Your task to perform on an android device: Open battery settings Image 0: 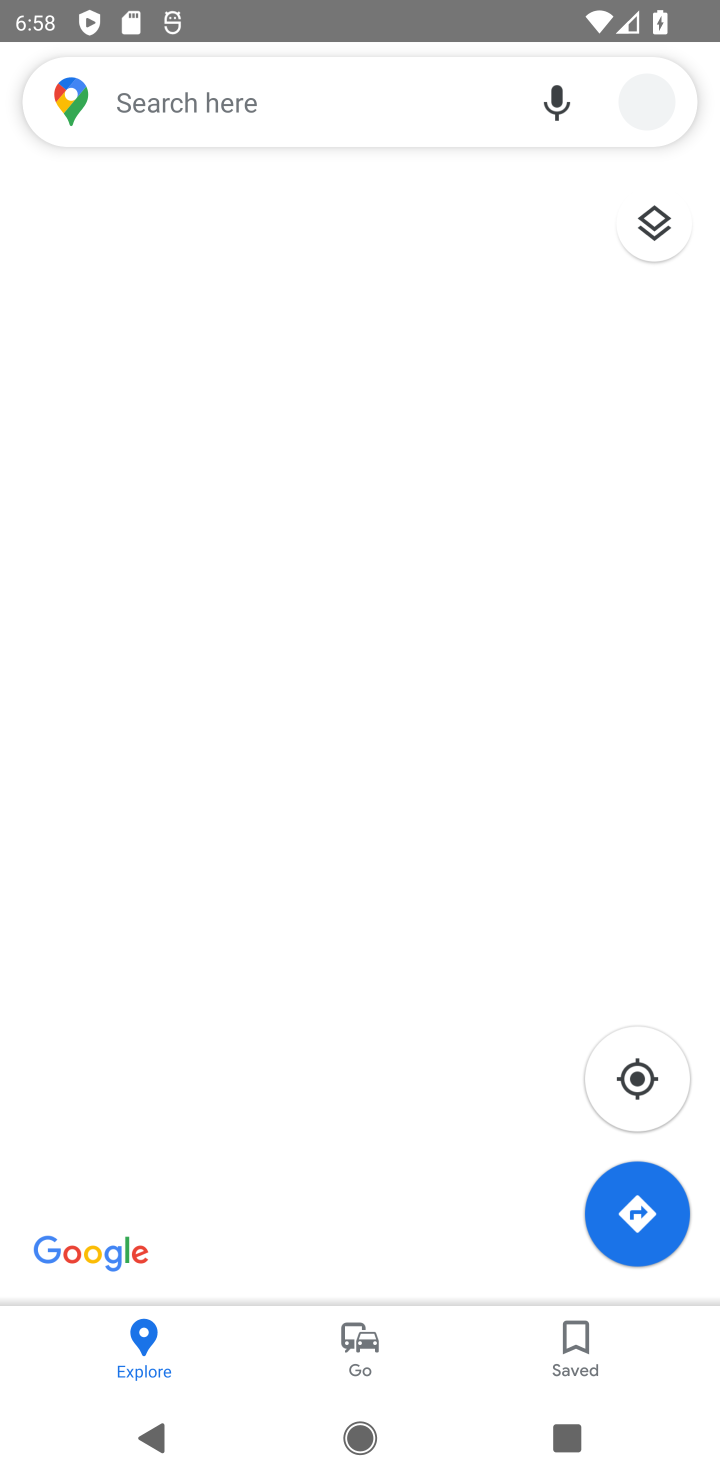
Step 0: press home button
Your task to perform on an android device: Open battery settings Image 1: 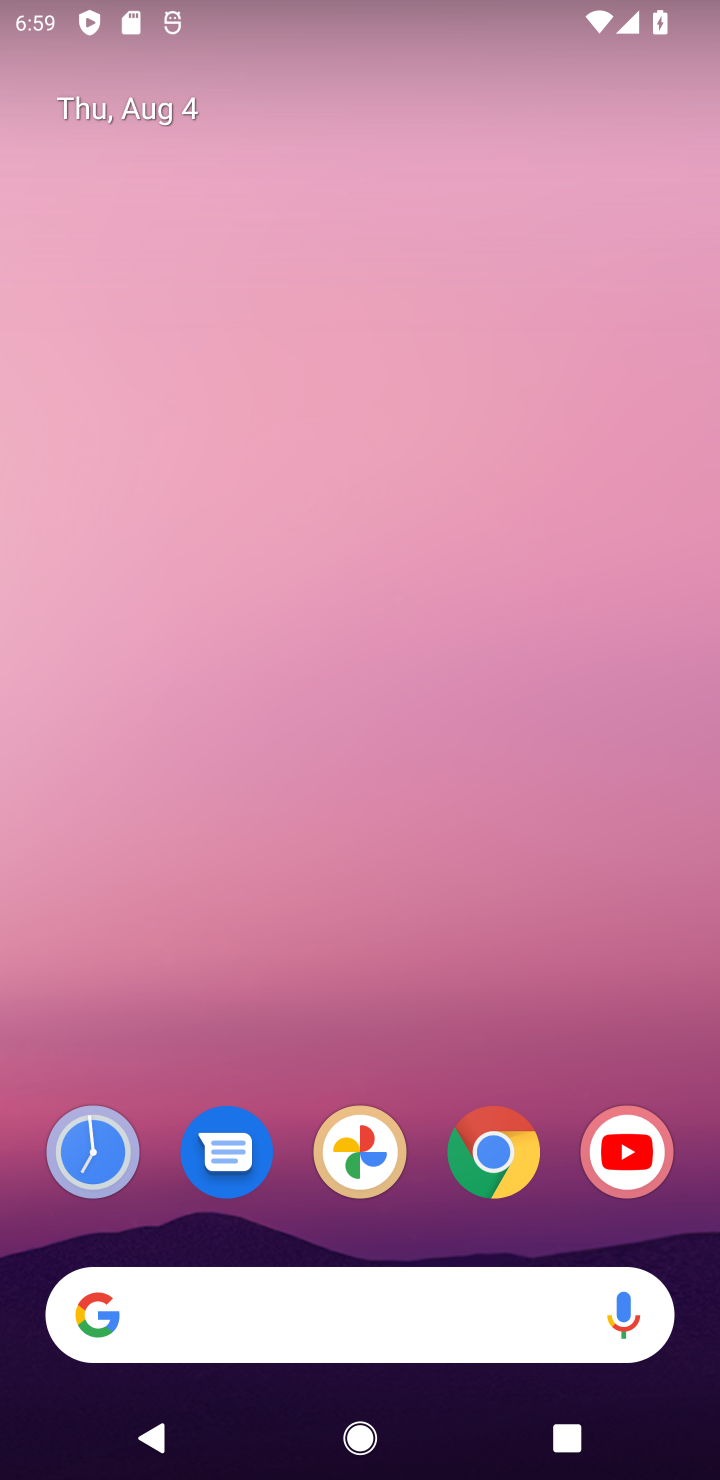
Step 1: drag from (560, 677) to (678, 282)
Your task to perform on an android device: Open battery settings Image 2: 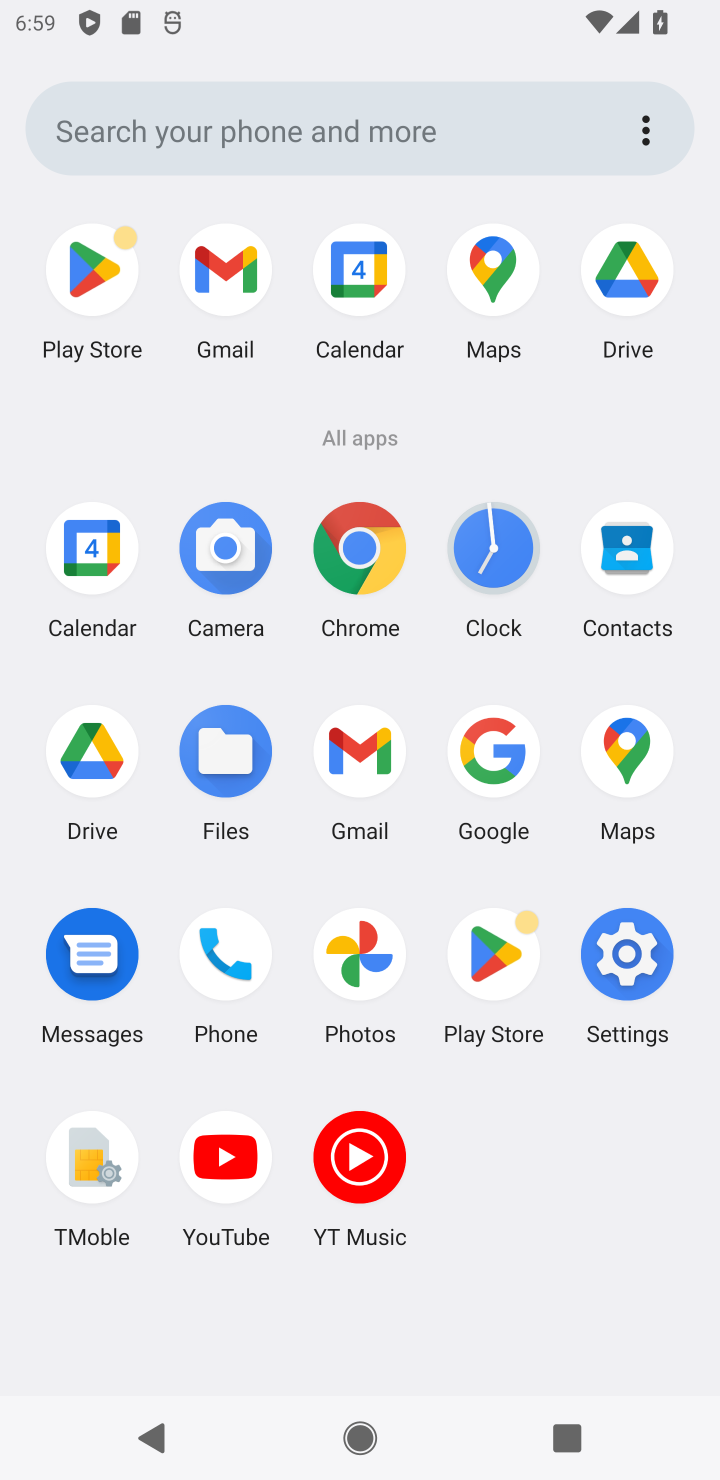
Step 2: click (646, 937)
Your task to perform on an android device: Open battery settings Image 3: 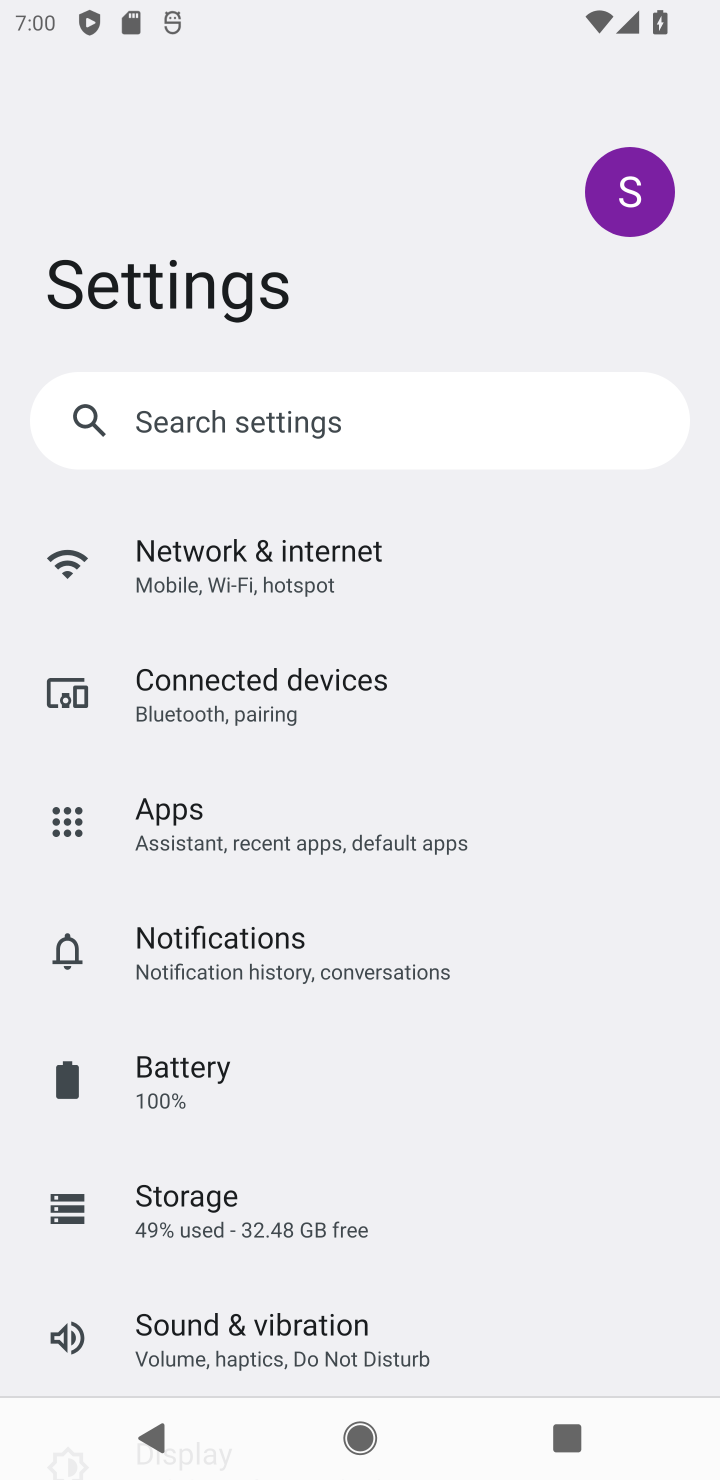
Step 3: click (153, 1072)
Your task to perform on an android device: Open battery settings Image 4: 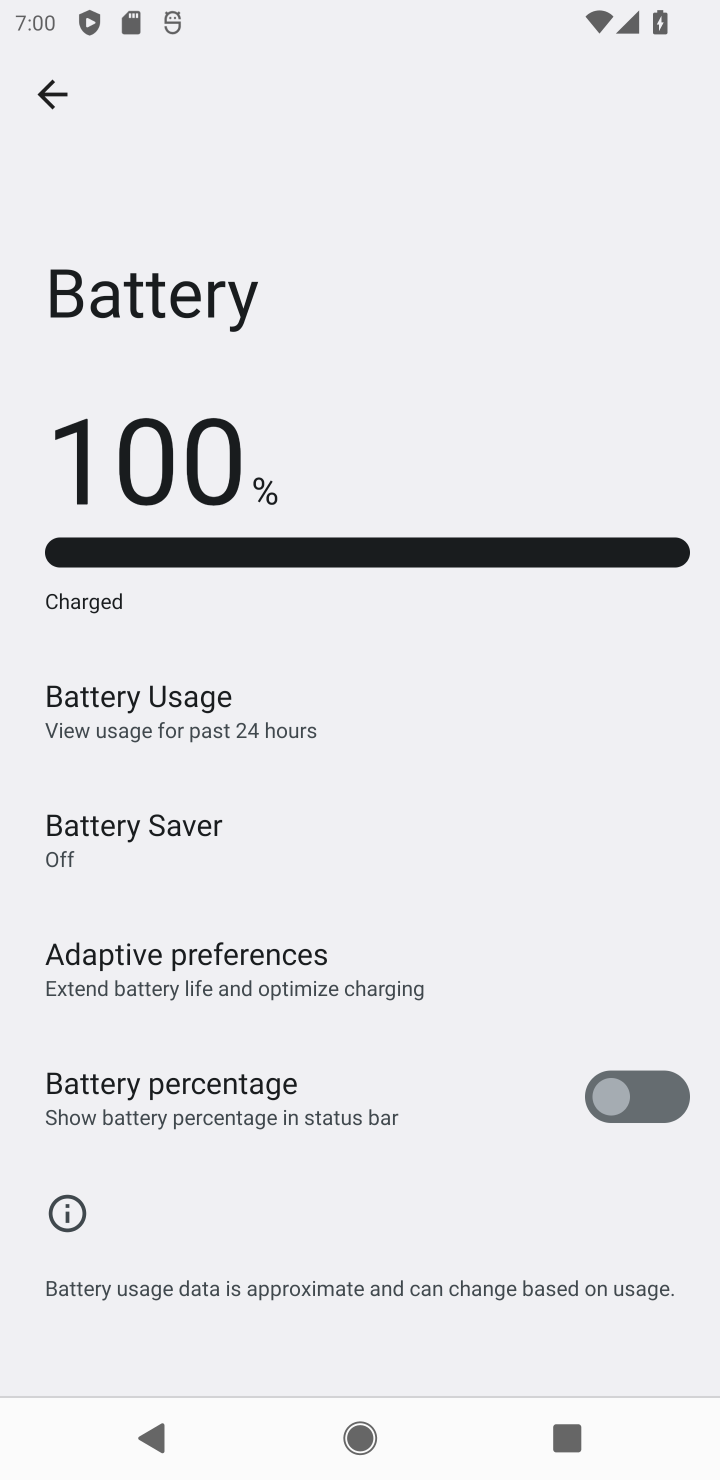
Step 4: task complete